Your task to perform on an android device: turn pop-ups off in chrome Image 0: 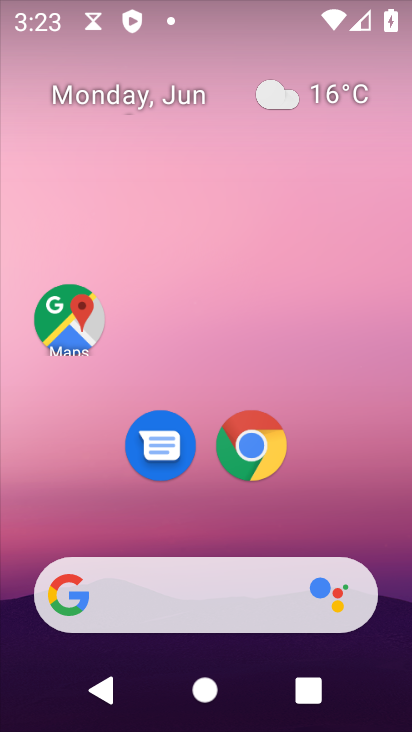
Step 0: drag from (92, 571) to (165, 133)
Your task to perform on an android device: turn pop-ups off in chrome Image 1: 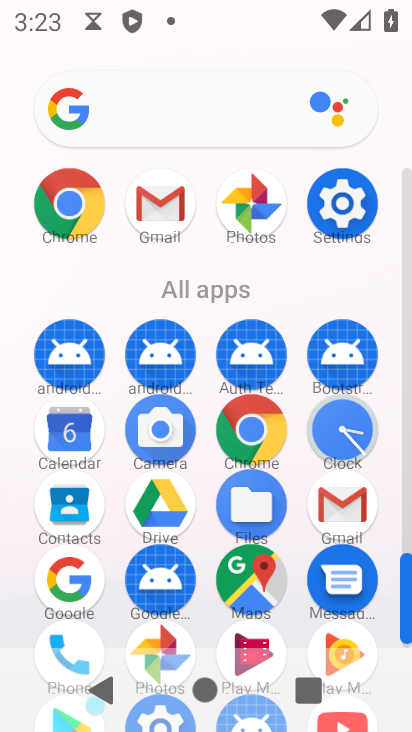
Step 1: click (248, 417)
Your task to perform on an android device: turn pop-ups off in chrome Image 2: 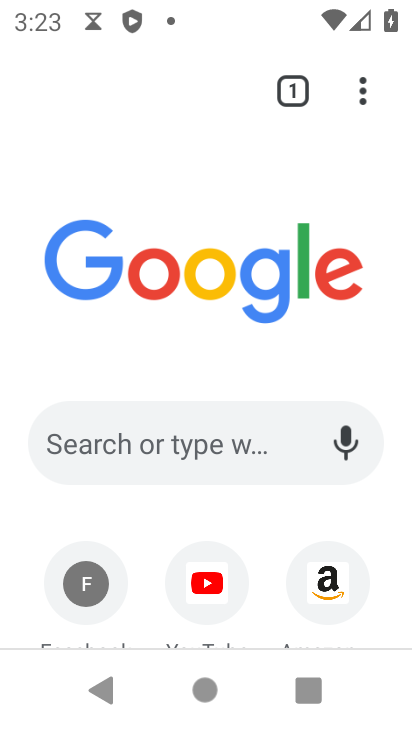
Step 2: drag from (372, 64) to (255, 455)
Your task to perform on an android device: turn pop-ups off in chrome Image 3: 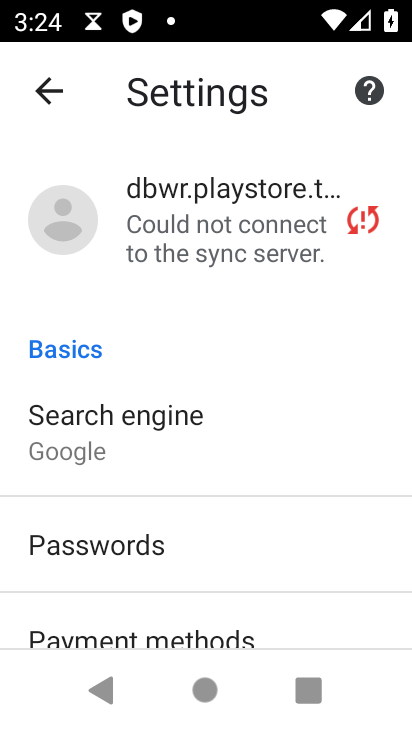
Step 3: drag from (73, 626) to (147, 183)
Your task to perform on an android device: turn pop-ups off in chrome Image 4: 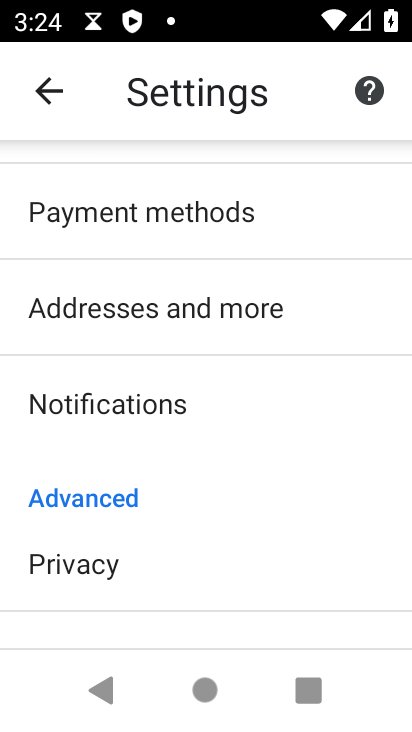
Step 4: drag from (86, 671) to (210, 276)
Your task to perform on an android device: turn pop-ups off in chrome Image 5: 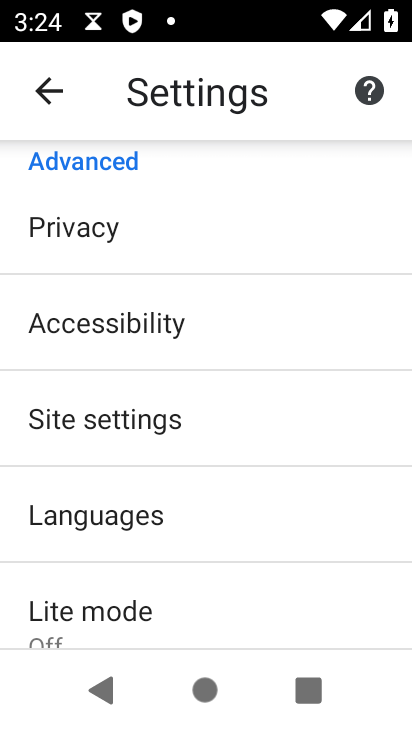
Step 5: click (165, 425)
Your task to perform on an android device: turn pop-ups off in chrome Image 6: 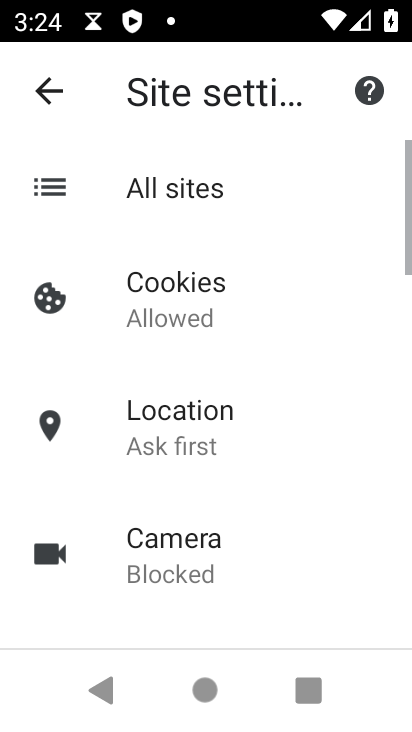
Step 6: drag from (124, 581) to (272, 120)
Your task to perform on an android device: turn pop-ups off in chrome Image 7: 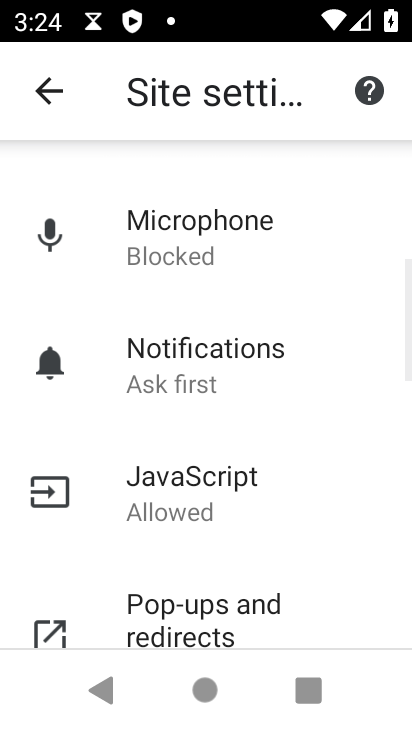
Step 7: click (192, 606)
Your task to perform on an android device: turn pop-ups off in chrome Image 8: 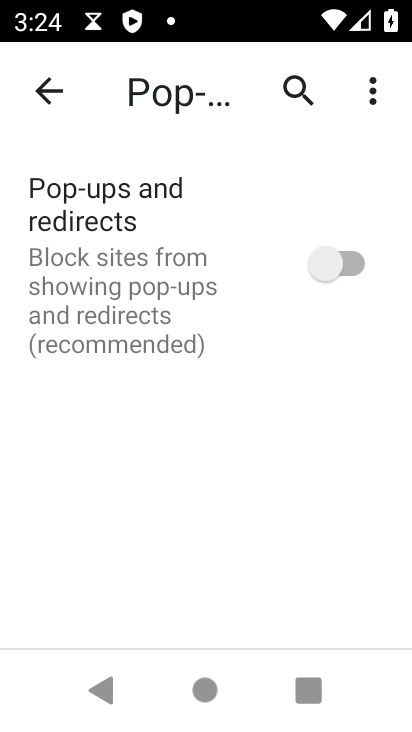
Step 8: task complete